Your task to perform on an android device: Open the phone app and click the voicemail tab. Image 0: 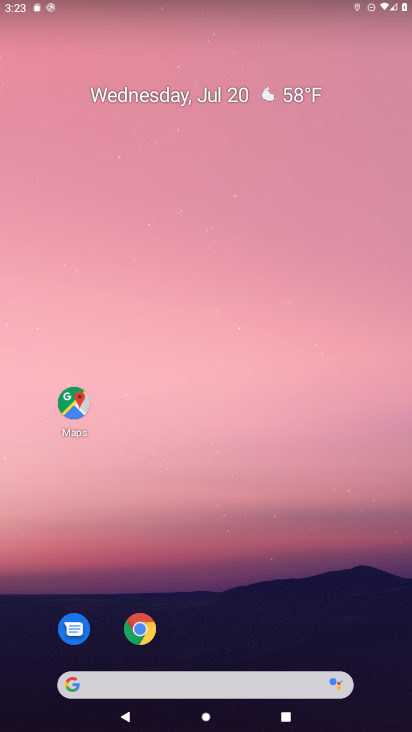
Step 0: drag from (252, 621) to (243, 38)
Your task to perform on an android device: Open the phone app and click the voicemail tab. Image 1: 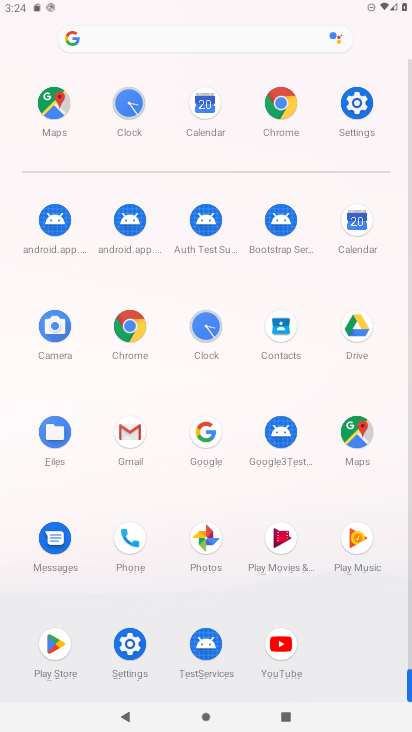
Step 1: click (120, 531)
Your task to perform on an android device: Open the phone app and click the voicemail tab. Image 2: 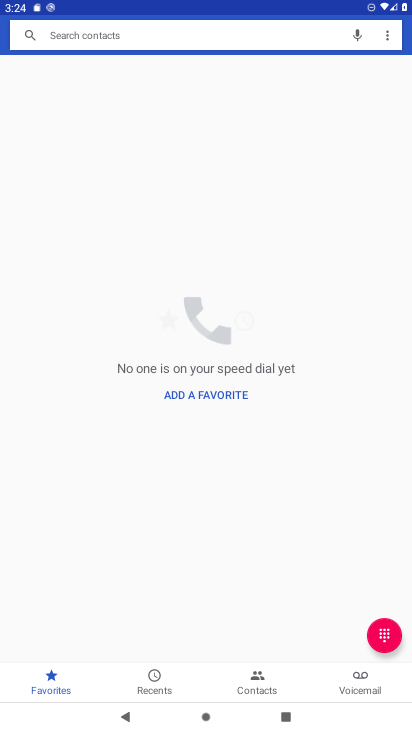
Step 2: click (348, 688)
Your task to perform on an android device: Open the phone app and click the voicemail tab. Image 3: 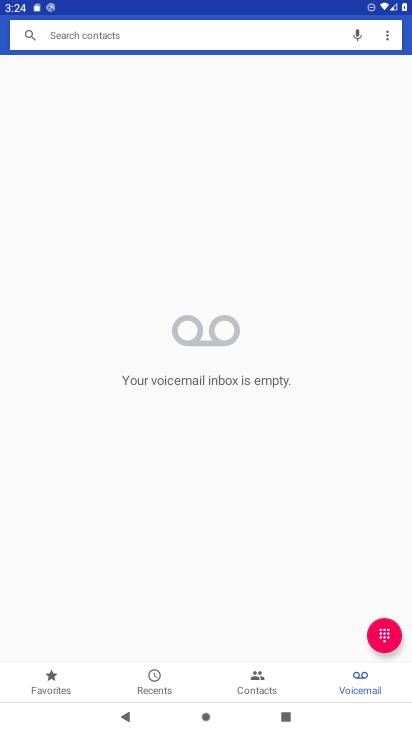
Step 3: task complete